Your task to perform on an android device: Search for vegetarian restaurants on Maps Image 0: 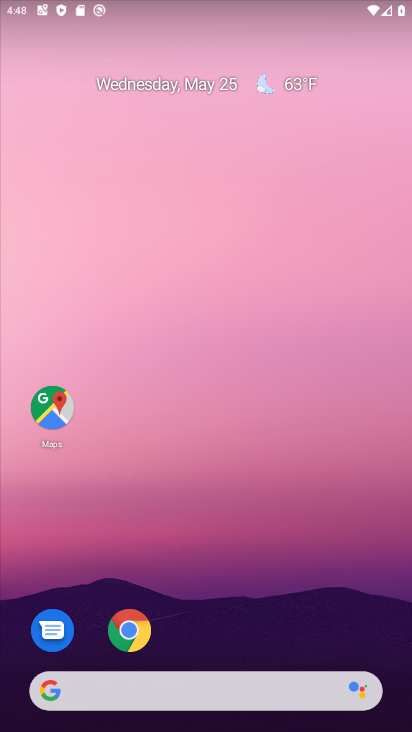
Step 0: click (33, 391)
Your task to perform on an android device: Search for vegetarian restaurants on Maps Image 1: 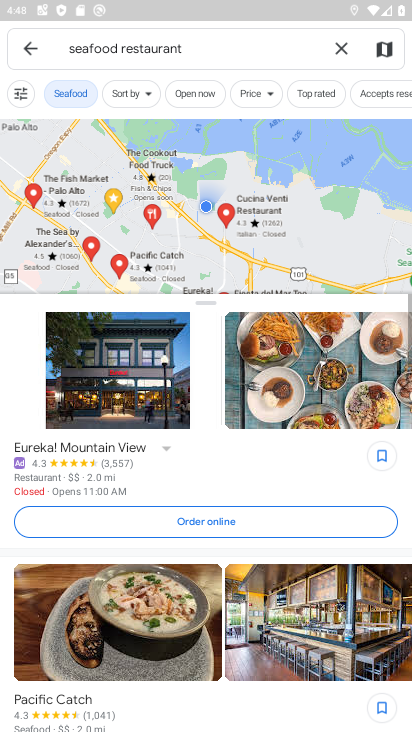
Step 1: click (338, 52)
Your task to perform on an android device: Search for vegetarian restaurants on Maps Image 2: 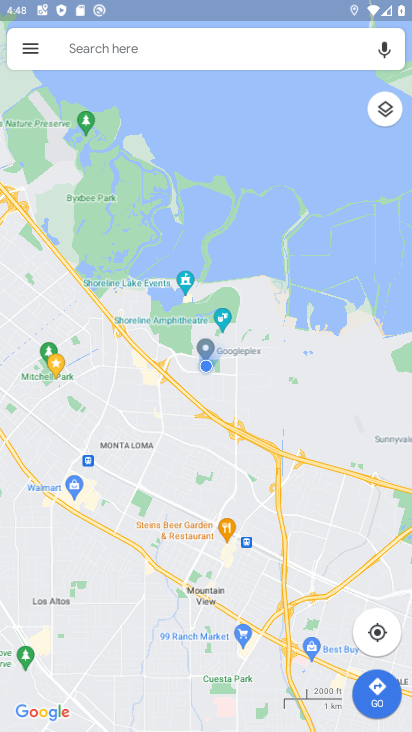
Step 2: click (161, 46)
Your task to perform on an android device: Search for vegetarian restaurants on Maps Image 3: 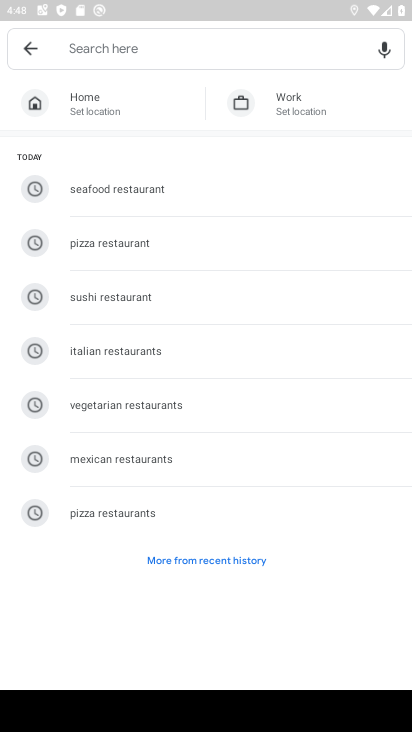
Step 3: click (124, 401)
Your task to perform on an android device: Search for vegetarian restaurants on Maps Image 4: 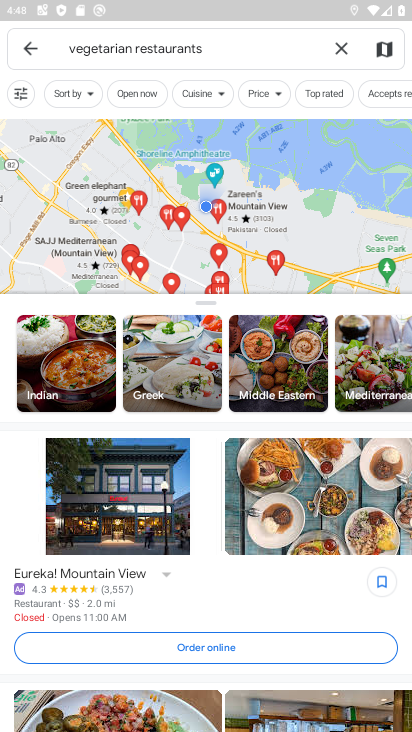
Step 4: task complete